Your task to perform on an android device: Check the weather Image 0: 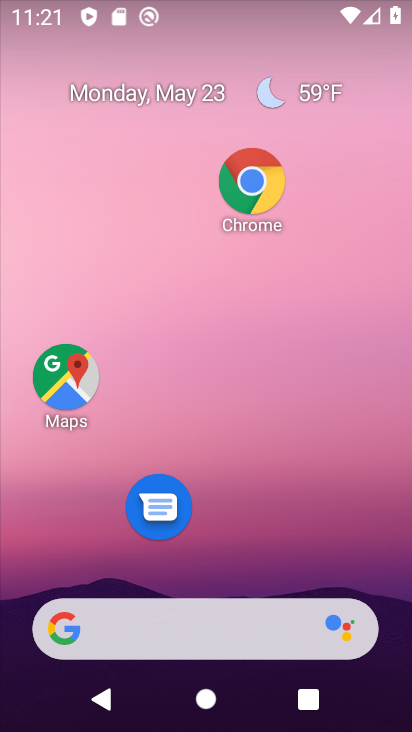
Step 0: drag from (302, 552) to (274, 249)
Your task to perform on an android device: Check the weather Image 1: 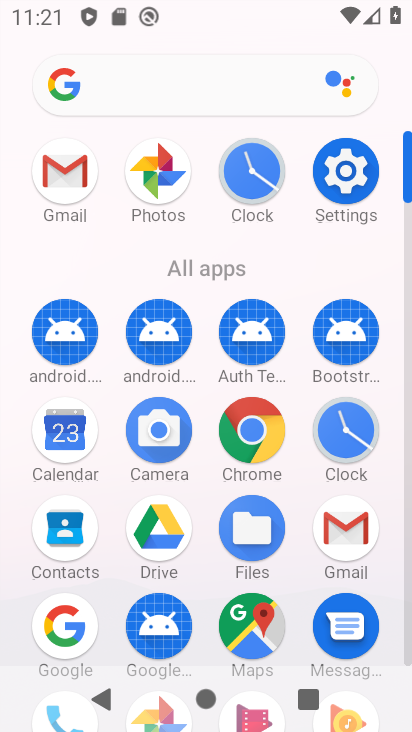
Step 1: click (249, 404)
Your task to perform on an android device: Check the weather Image 2: 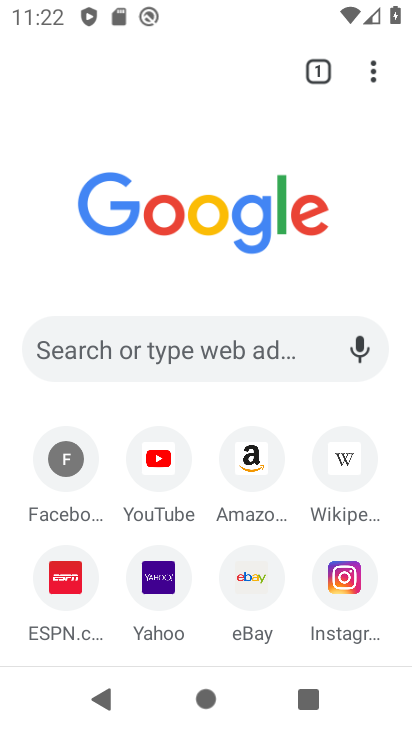
Step 2: click (234, 333)
Your task to perform on an android device: Check the weather Image 3: 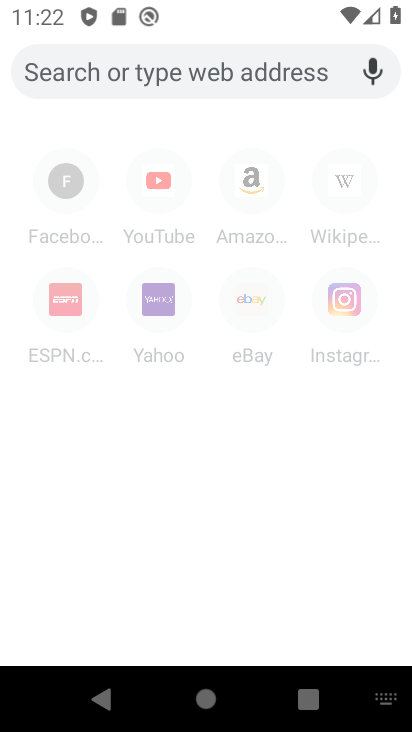
Step 3: type "Check the weather"
Your task to perform on an android device: Check the weather Image 4: 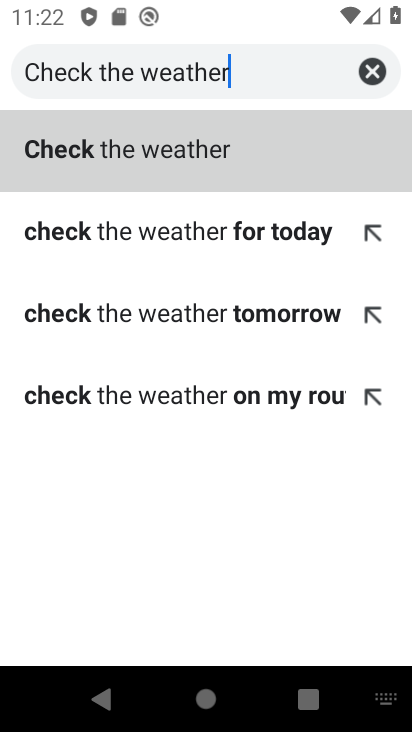
Step 4: click (248, 139)
Your task to perform on an android device: Check the weather Image 5: 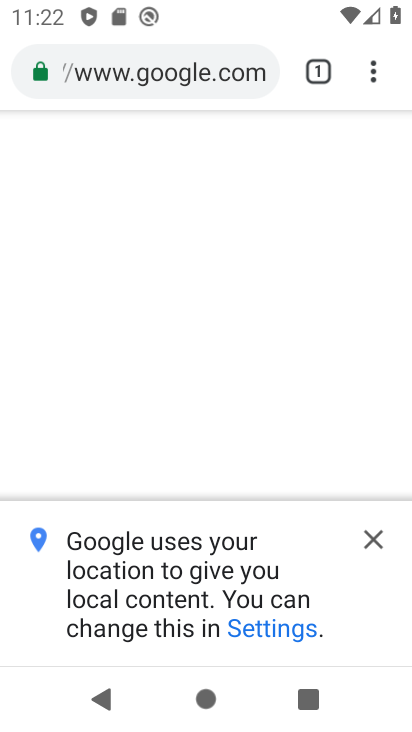
Step 5: task complete